Your task to perform on an android device: Open ESPN.com Image 0: 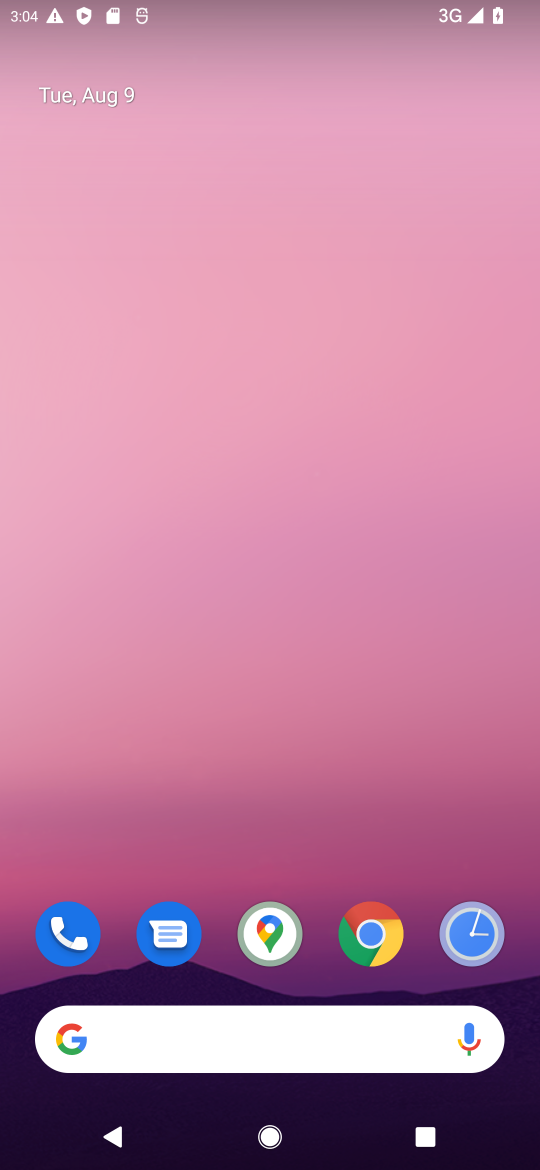
Step 0: click (375, 964)
Your task to perform on an android device: Open ESPN.com Image 1: 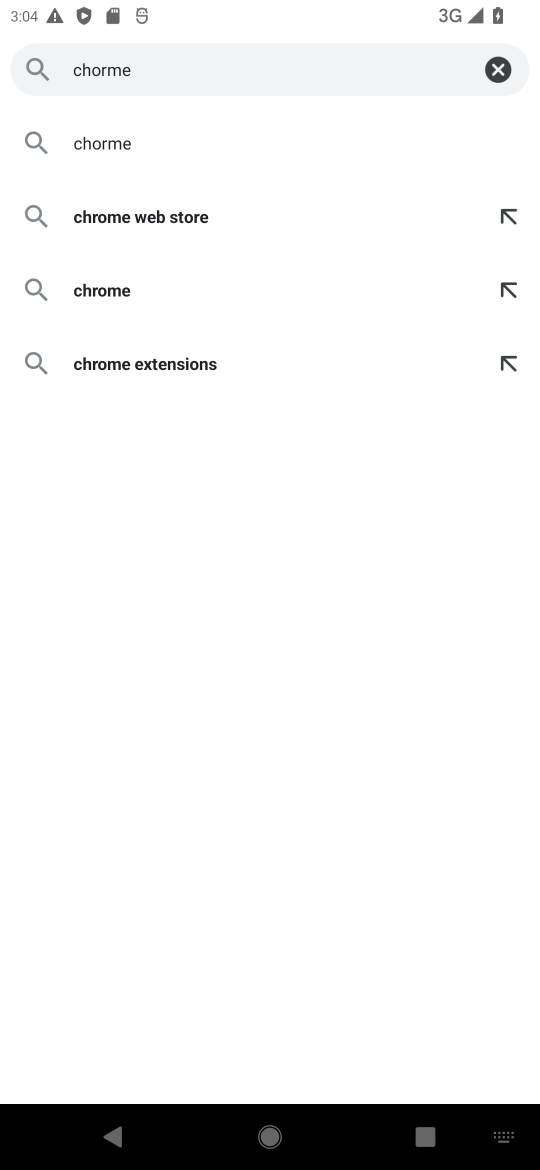
Step 1: click (501, 71)
Your task to perform on an android device: Open ESPN.com Image 2: 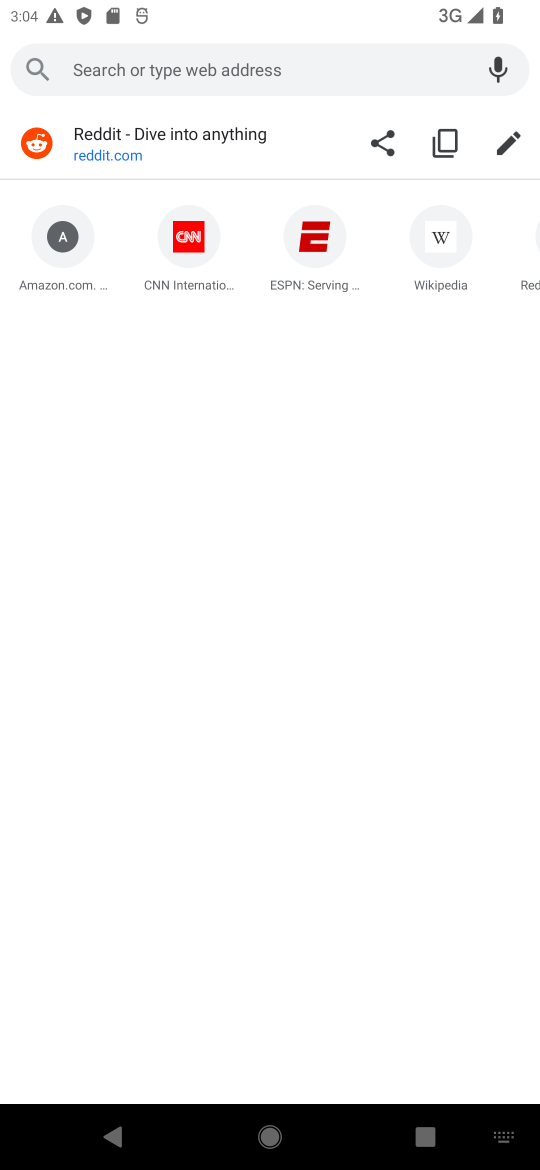
Step 2: click (323, 237)
Your task to perform on an android device: Open ESPN.com Image 3: 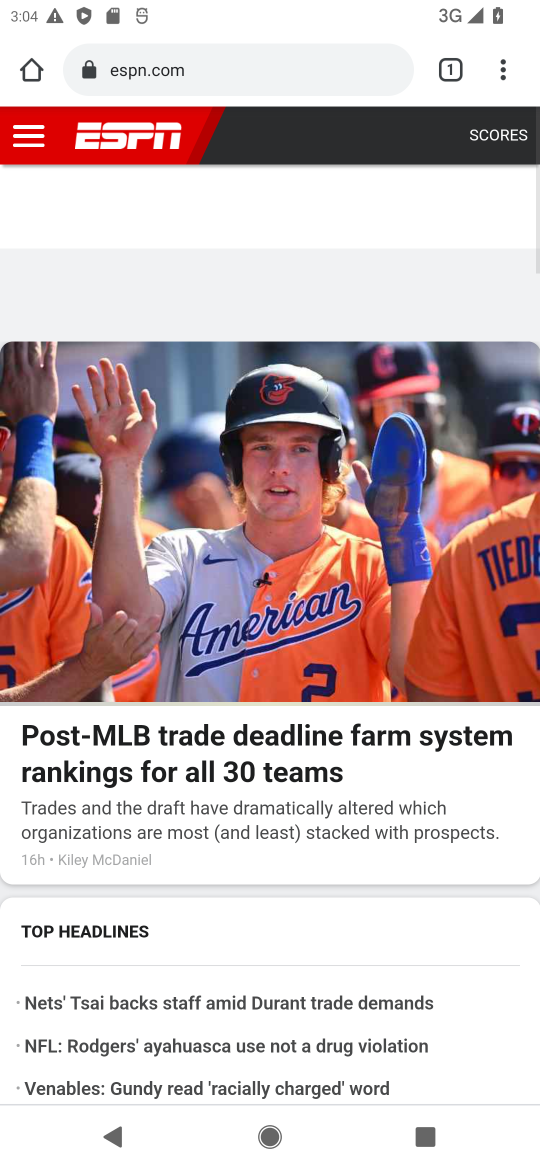
Step 3: task complete